Your task to perform on an android device: check storage Image 0: 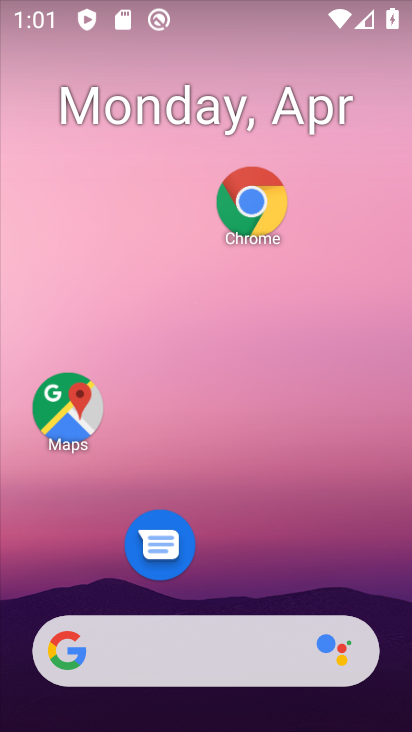
Step 0: drag from (270, 602) to (342, 144)
Your task to perform on an android device: check storage Image 1: 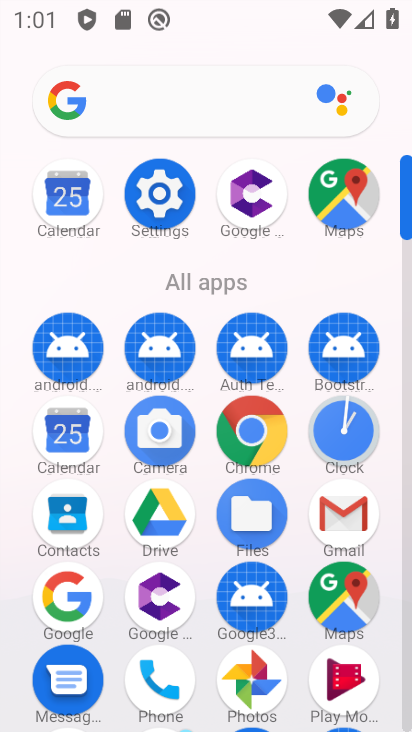
Step 1: click (155, 211)
Your task to perform on an android device: check storage Image 2: 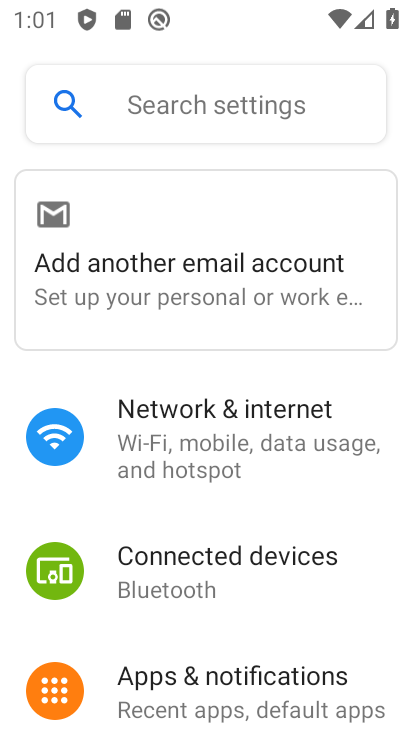
Step 2: drag from (108, 624) to (179, 145)
Your task to perform on an android device: check storage Image 3: 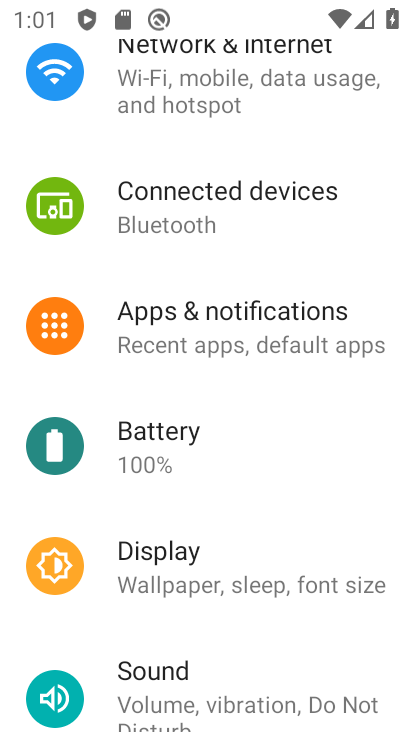
Step 3: drag from (132, 606) to (139, 182)
Your task to perform on an android device: check storage Image 4: 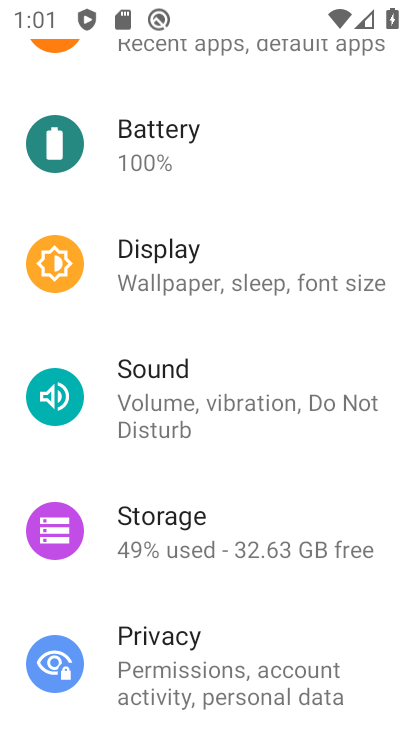
Step 4: click (161, 517)
Your task to perform on an android device: check storage Image 5: 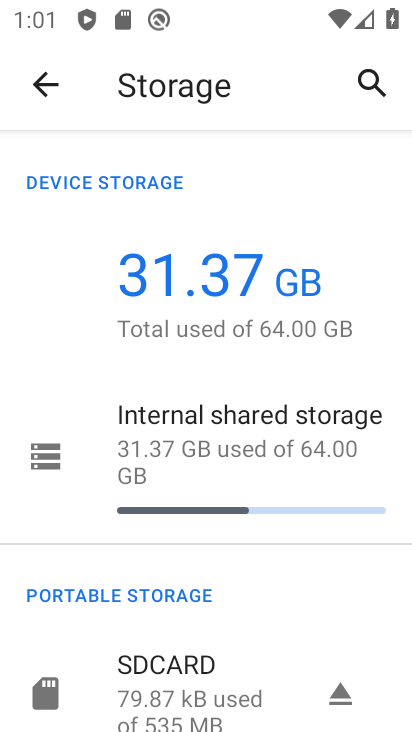
Step 5: task complete